Your task to perform on an android device: delete browsing data in the chrome app Image 0: 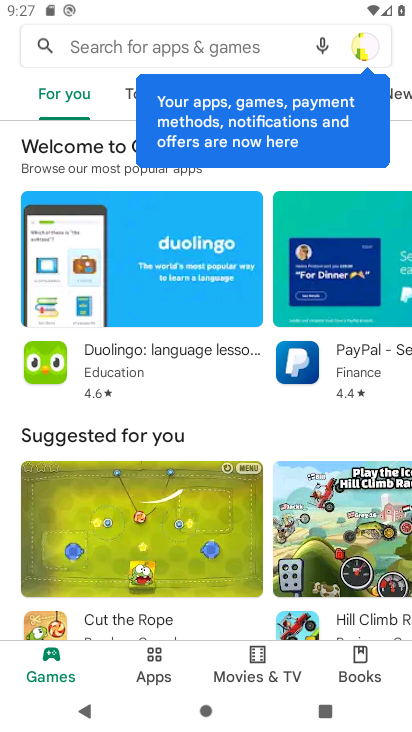
Step 0: press home button
Your task to perform on an android device: delete browsing data in the chrome app Image 1: 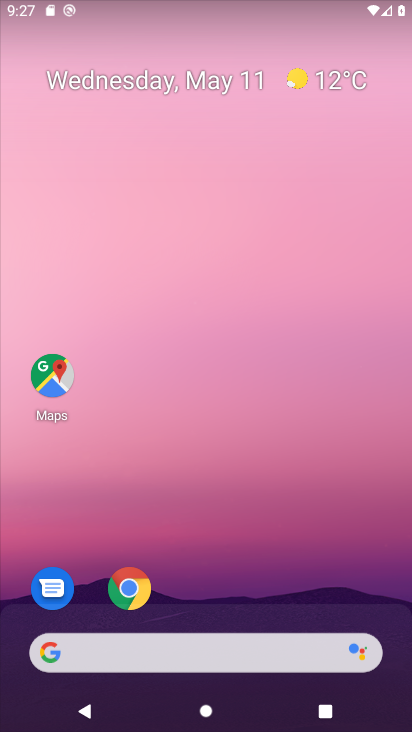
Step 1: drag from (213, 601) to (231, 112)
Your task to perform on an android device: delete browsing data in the chrome app Image 2: 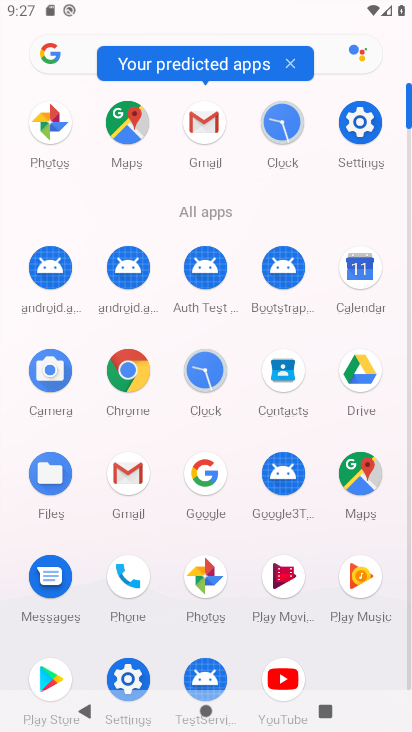
Step 2: click (126, 366)
Your task to perform on an android device: delete browsing data in the chrome app Image 3: 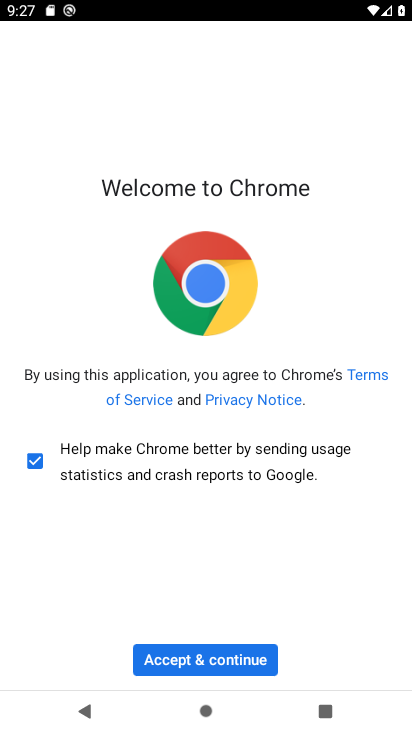
Step 3: click (197, 653)
Your task to perform on an android device: delete browsing data in the chrome app Image 4: 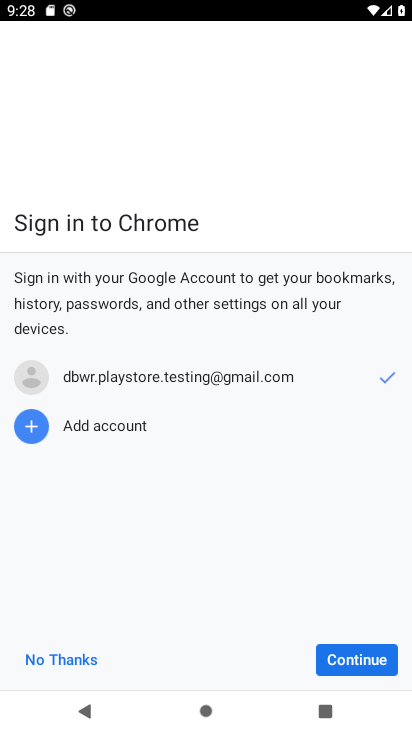
Step 4: click (356, 650)
Your task to perform on an android device: delete browsing data in the chrome app Image 5: 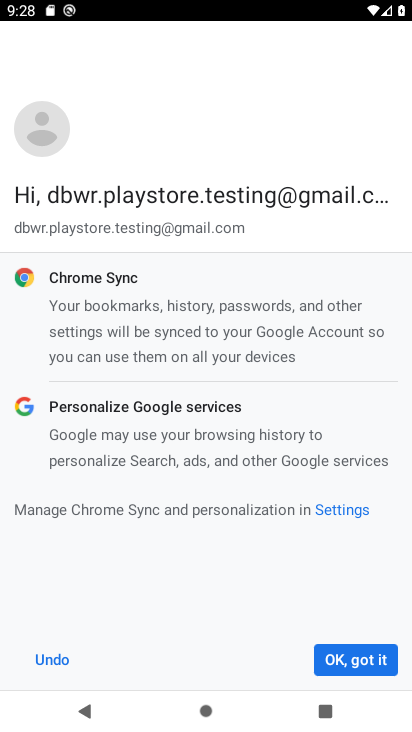
Step 5: click (356, 650)
Your task to perform on an android device: delete browsing data in the chrome app Image 6: 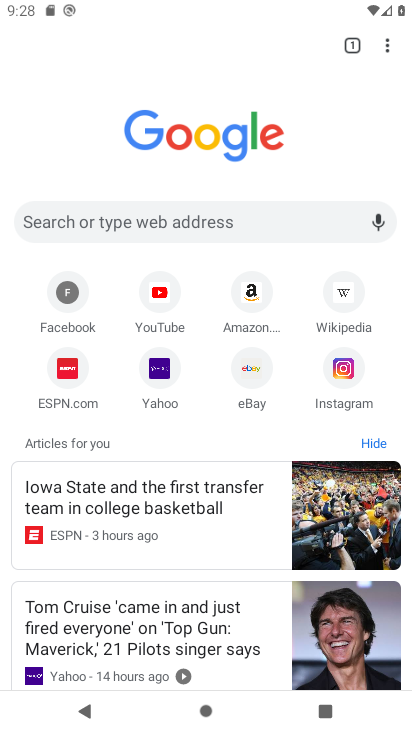
Step 6: drag from (385, 48) to (247, 382)
Your task to perform on an android device: delete browsing data in the chrome app Image 7: 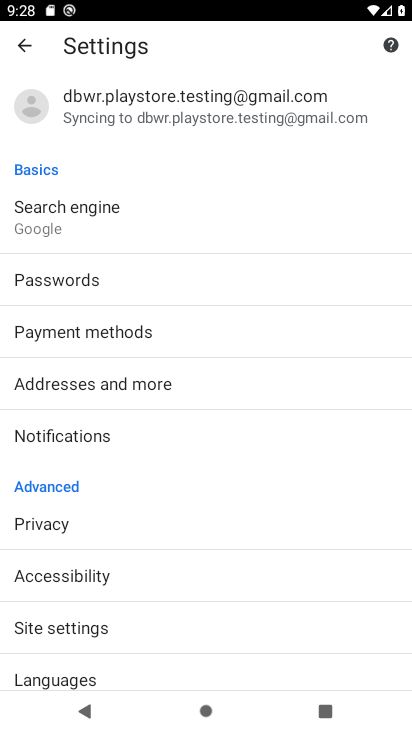
Step 7: click (66, 527)
Your task to perform on an android device: delete browsing data in the chrome app Image 8: 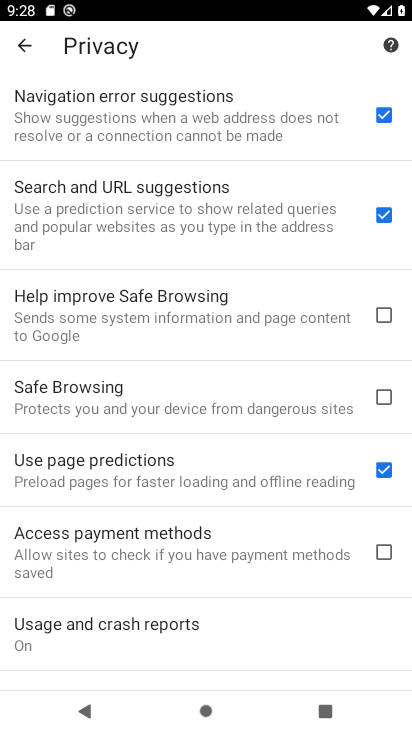
Step 8: drag from (291, 620) to (305, 166)
Your task to perform on an android device: delete browsing data in the chrome app Image 9: 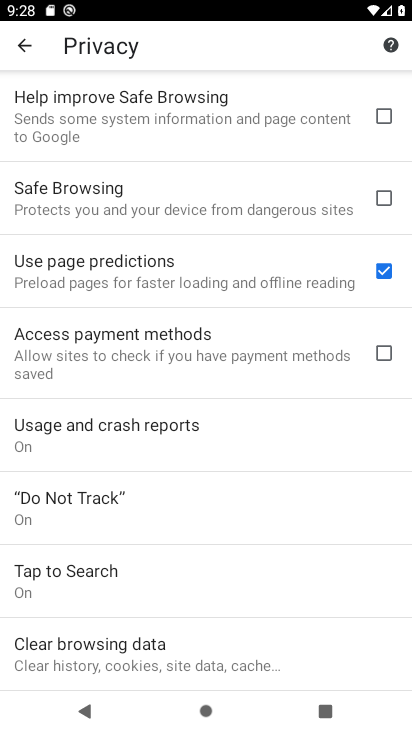
Step 9: click (106, 644)
Your task to perform on an android device: delete browsing data in the chrome app Image 10: 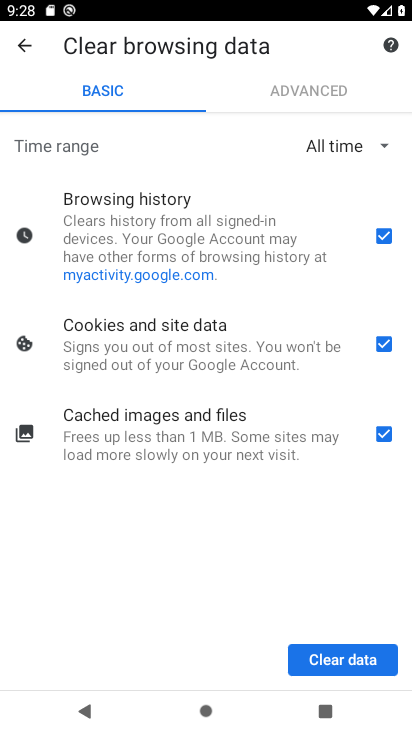
Step 10: click (366, 654)
Your task to perform on an android device: delete browsing data in the chrome app Image 11: 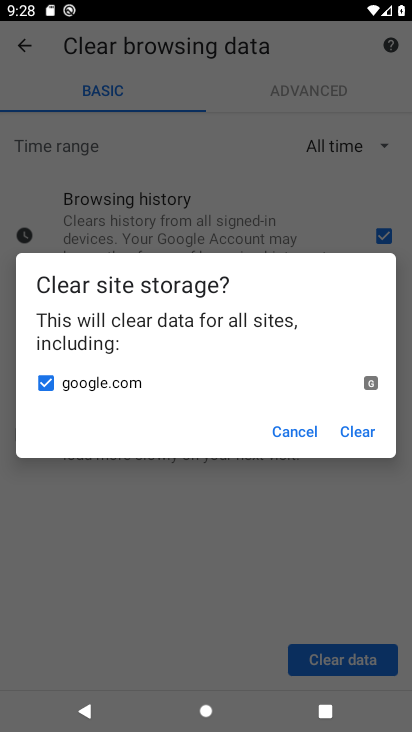
Step 11: click (374, 424)
Your task to perform on an android device: delete browsing data in the chrome app Image 12: 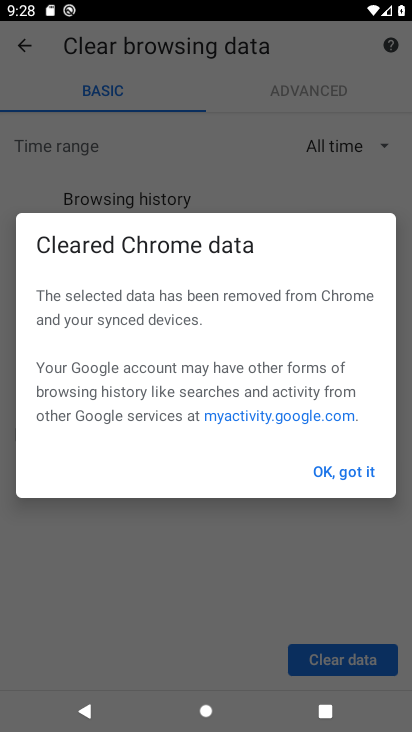
Step 12: click (358, 466)
Your task to perform on an android device: delete browsing data in the chrome app Image 13: 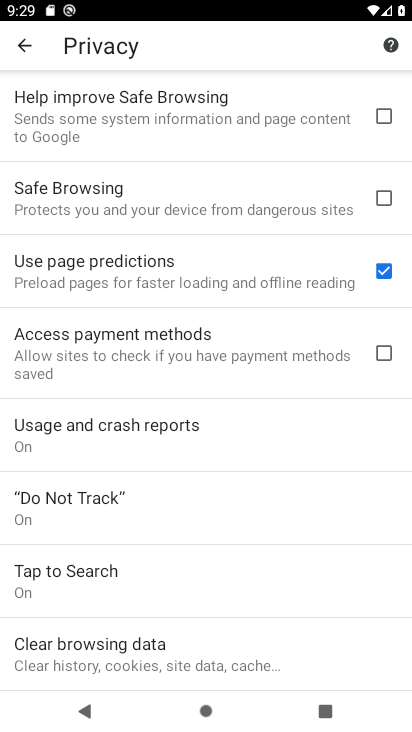
Step 13: task complete